Your task to perform on an android device: all mails in gmail Image 0: 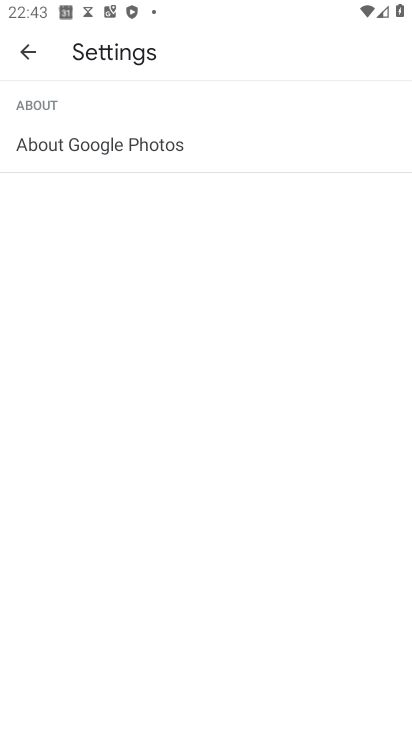
Step 0: press back button
Your task to perform on an android device: all mails in gmail Image 1: 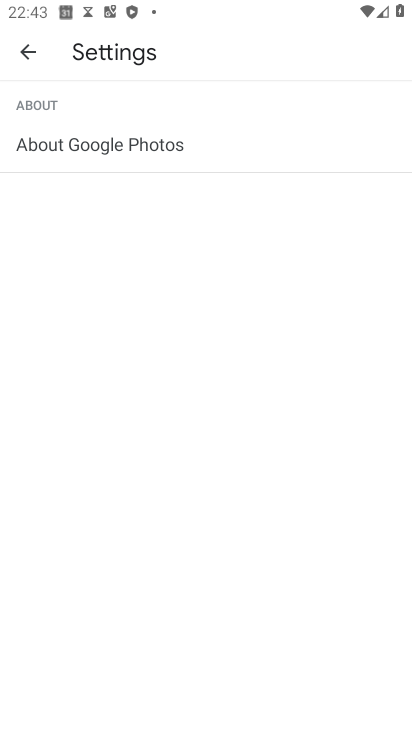
Step 1: press back button
Your task to perform on an android device: all mails in gmail Image 2: 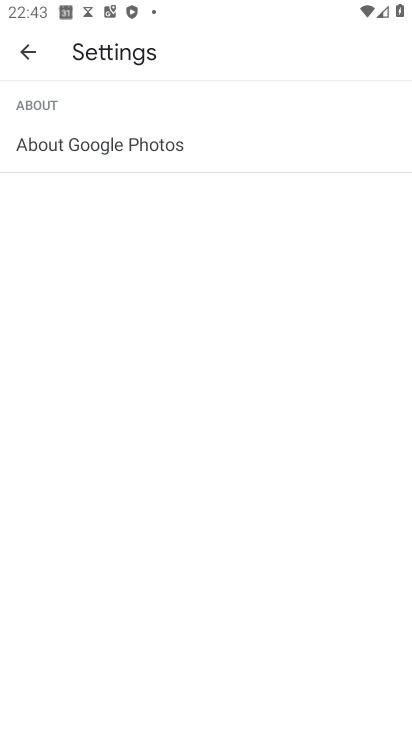
Step 2: press back button
Your task to perform on an android device: all mails in gmail Image 3: 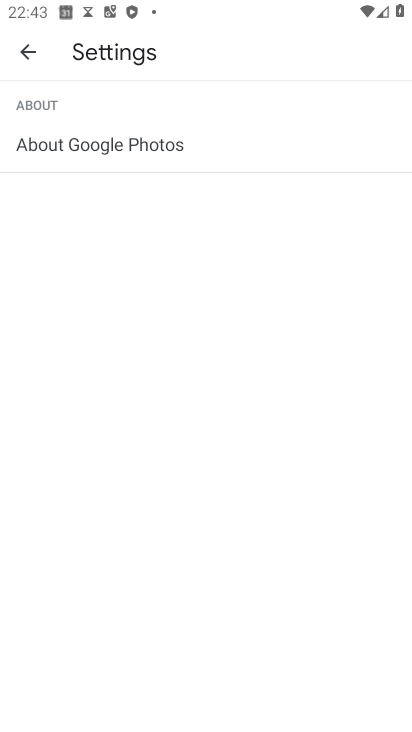
Step 3: press home button
Your task to perform on an android device: all mails in gmail Image 4: 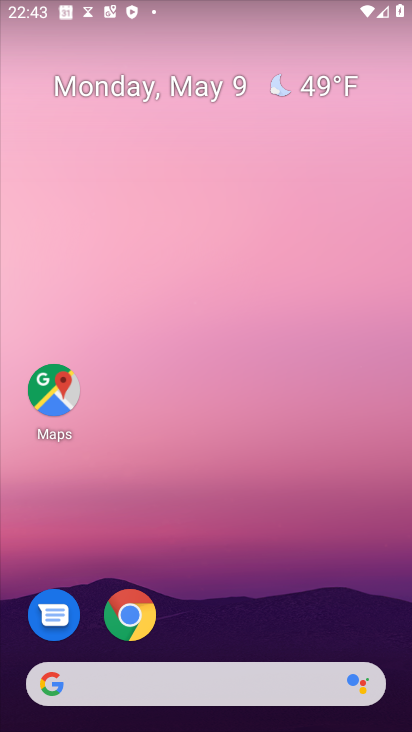
Step 4: drag from (220, 530) to (278, 125)
Your task to perform on an android device: all mails in gmail Image 5: 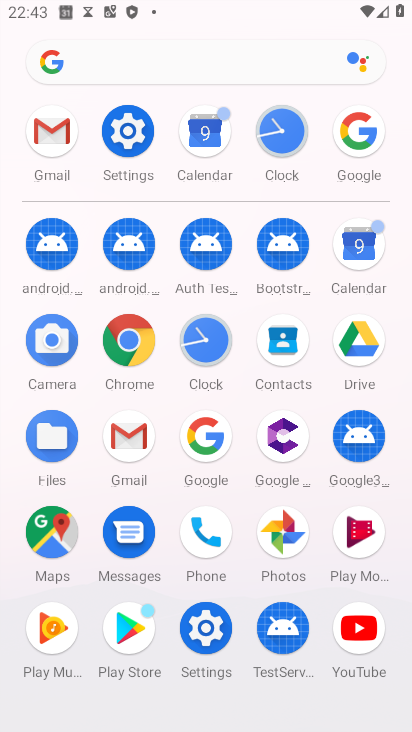
Step 5: click (130, 444)
Your task to perform on an android device: all mails in gmail Image 6: 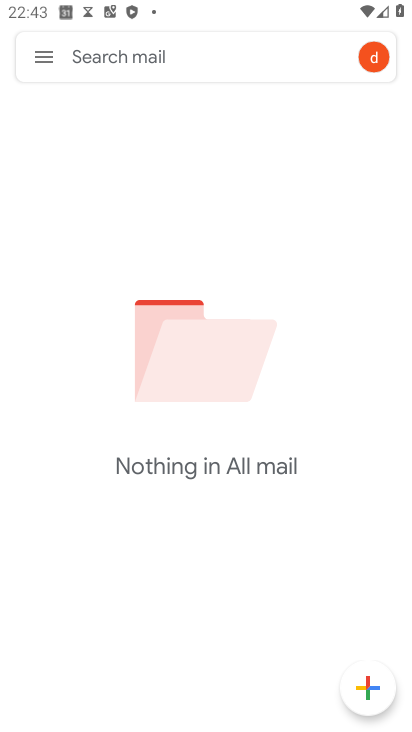
Step 6: click (36, 56)
Your task to perform on an android device: all mails in gmail Image 7: 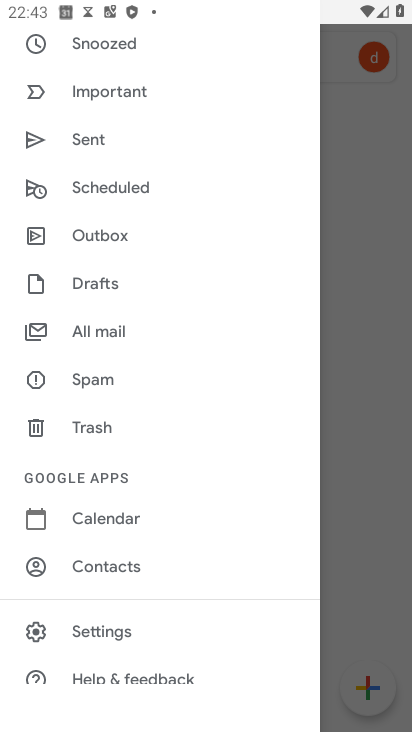
Step 7: click (128, 329)
Your task to perform on an android device: all mails in gmail Image 8: 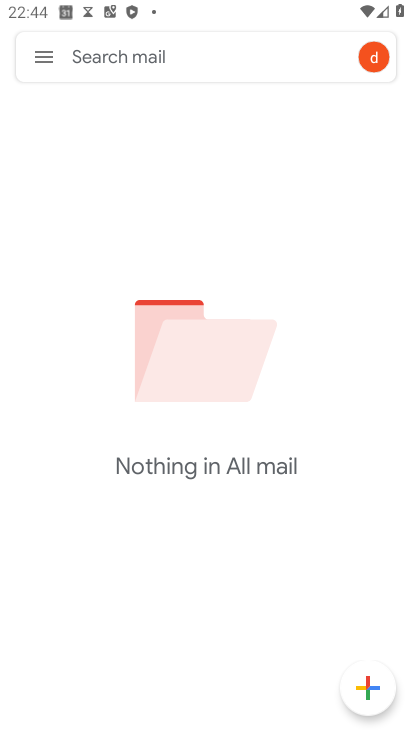
Step 8: click (42, 55)
Your task to perform on an android device: all mails in gmail Image 9: 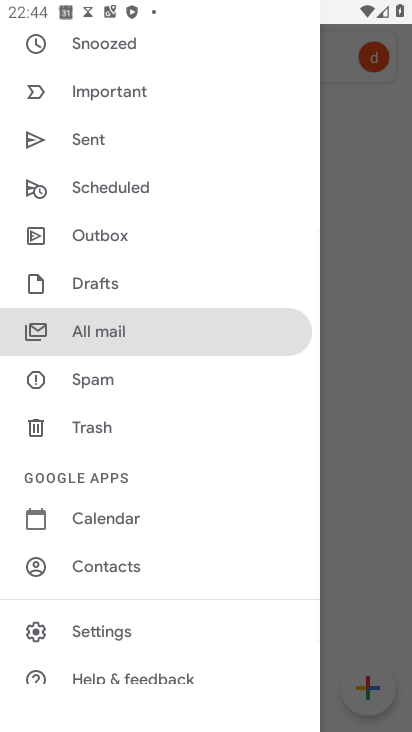
Step 9: click (91, 326)
Your task to perform on an android device: all mails in gmail Image 10: 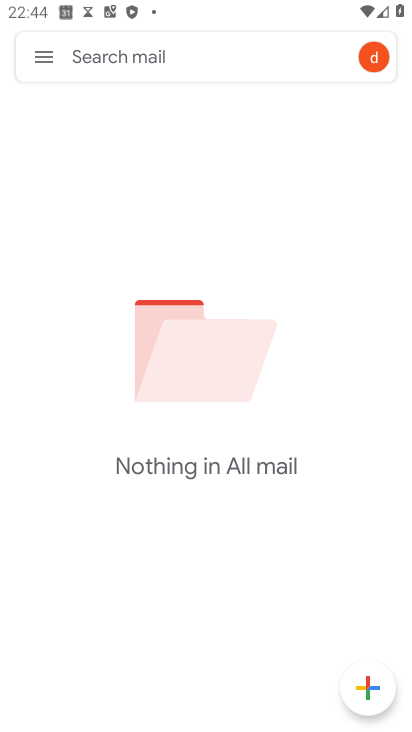
Step 10: task complete